Your task to perform on an android device: see creations saved in the google photos Image 0: 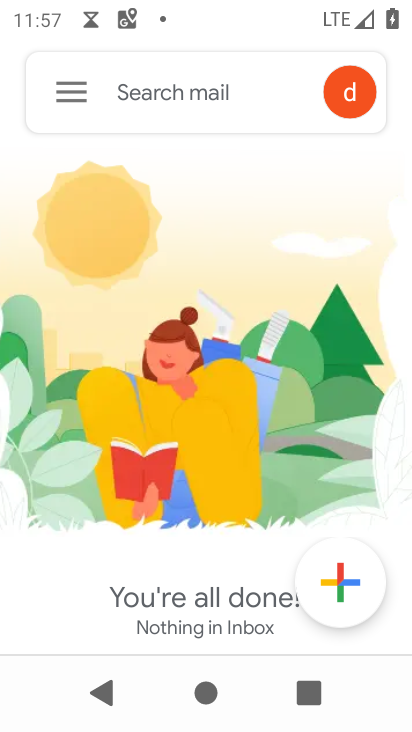
Step 0: press home button
Your task to perform on an android device: see creations saved in the google photos Image 1: 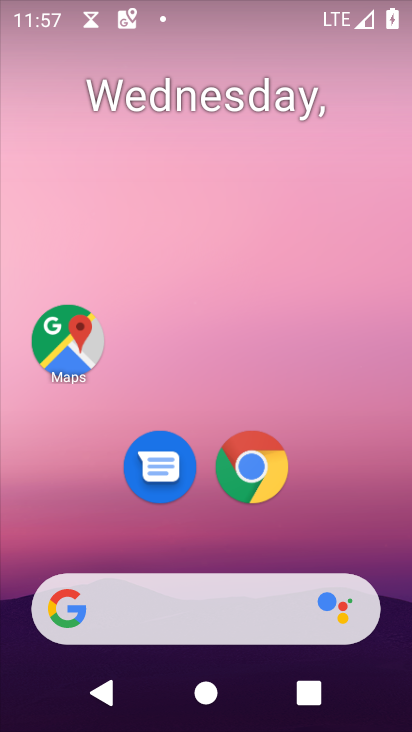
Step 1: drag from (237, 595) to (301, 155)
Your task to perform on an android device: see creations saved in the google photos Image 2: 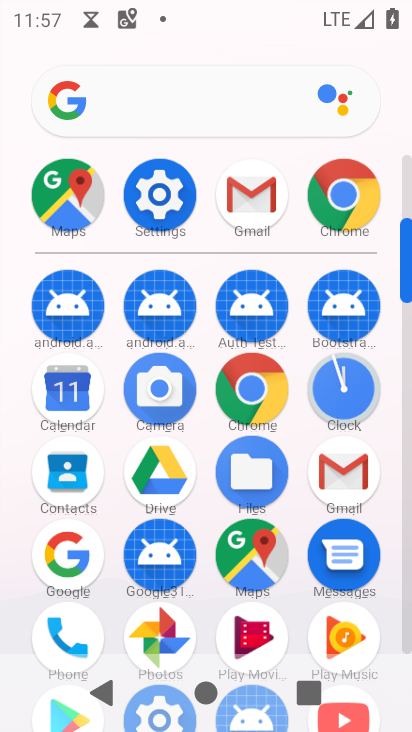
Step 2: click (167, 638)
Your task to perform on an android device: see creations saved in the google photos Image 3: 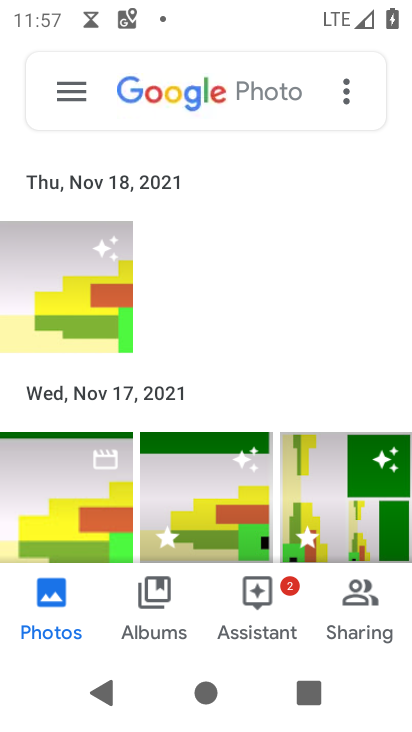
Step 3: click (159, 593)
Your task to perform on an android device: see creations saved in the google photos Image 4: 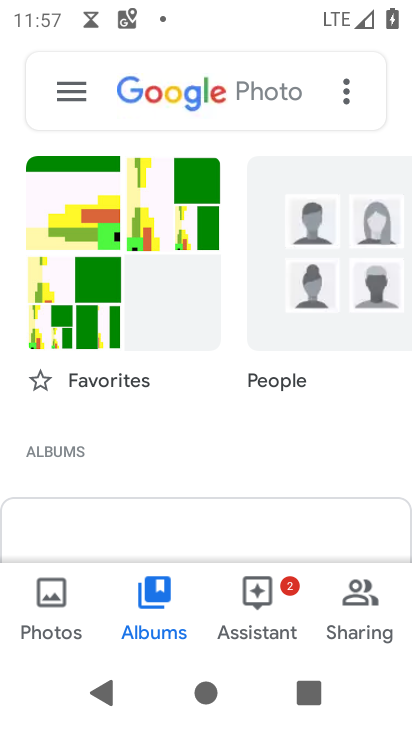
Step 4: click (190, 95)
Your task to perform on an android device: see creations saved in the google photos Image 5: 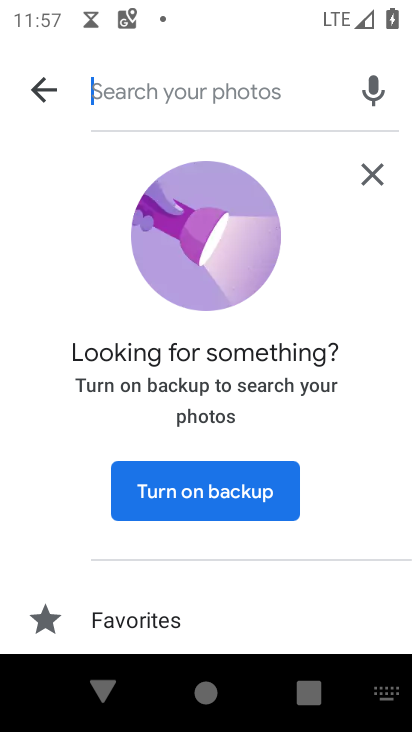
Step 5: click (239, 504)
Your task to perform on an android device: see creations saved in the google photos Image 6: 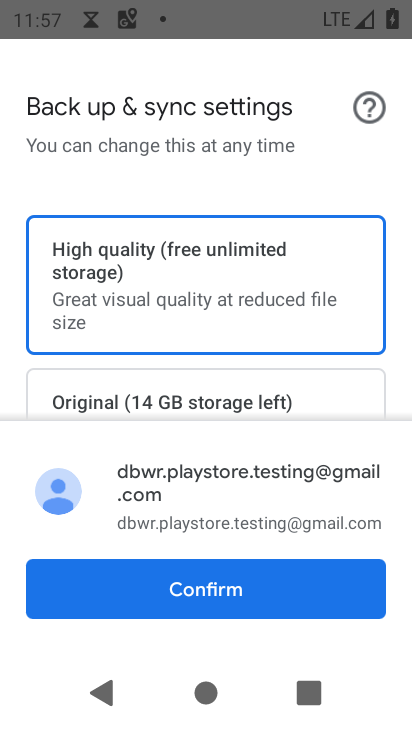
Step 6: click (215, 598)
Your task to perform on an android device: see creations saved in the google photos Image 7: 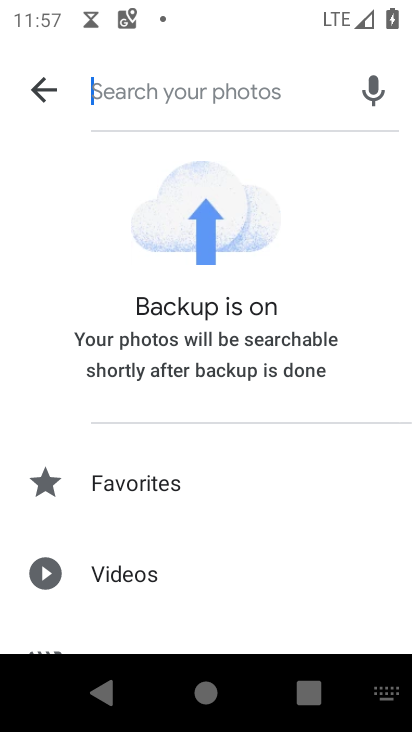
Step 7: drag from (215, 598) to (297, 207)
Your task to perform on an android device: see creations saved in the google photos Image 8: 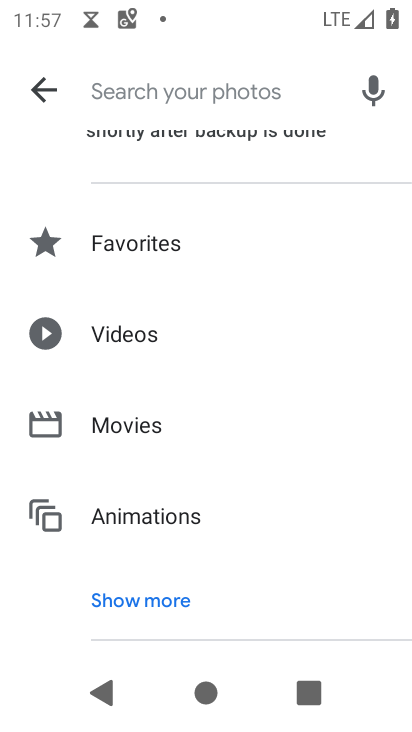
Step 8: click (150, 602)
Your task to perform on an android device: see creations saved in the google photos Image 9: 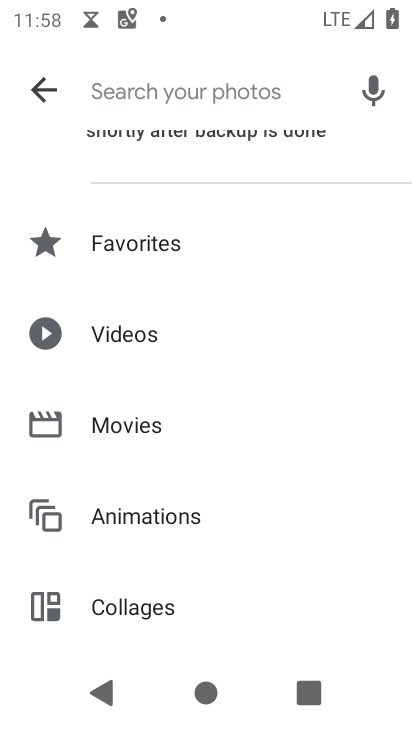
Step 9: drag from (174, 621) to (287, 260)
Your task to perform on an android device: see creations saved in the google photos Image 10: 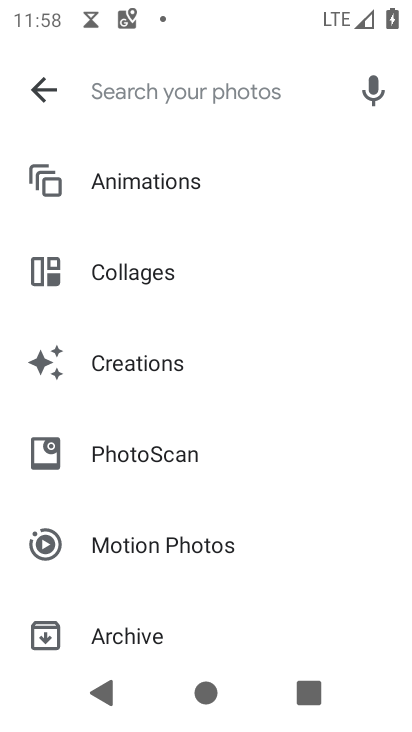
Step 10: click (176, 358)
Your task to perform on an android device: see creations saved in the google photos Image 11: 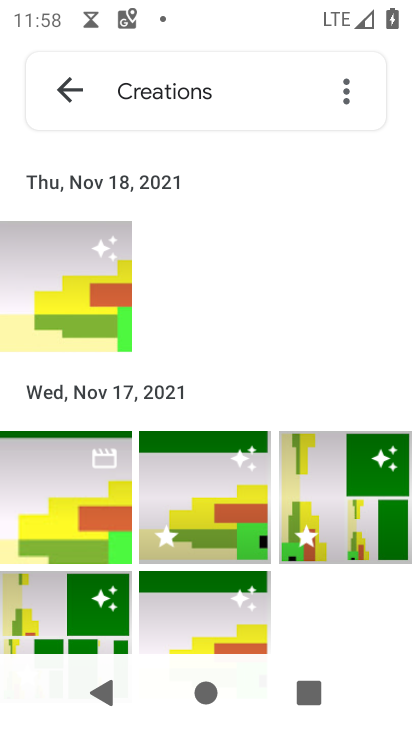
Step 11: task complete